Your task to perform on an android device: Open the stopwatch Image 0: 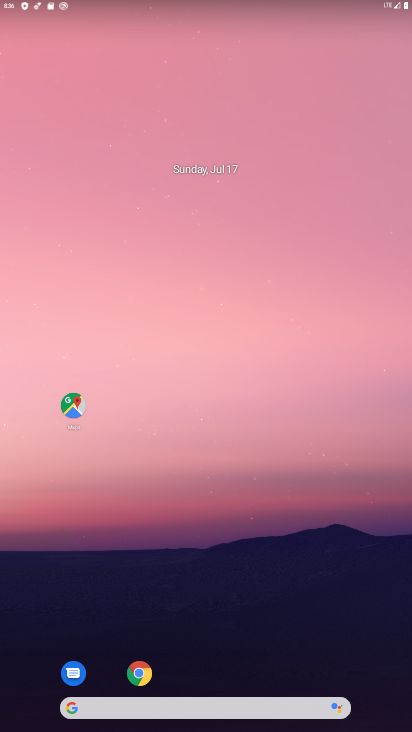
Step 0: drag from (361, 677) to (217, 32)
Your task to perform on an android device: Open the stopwatch Image 1: 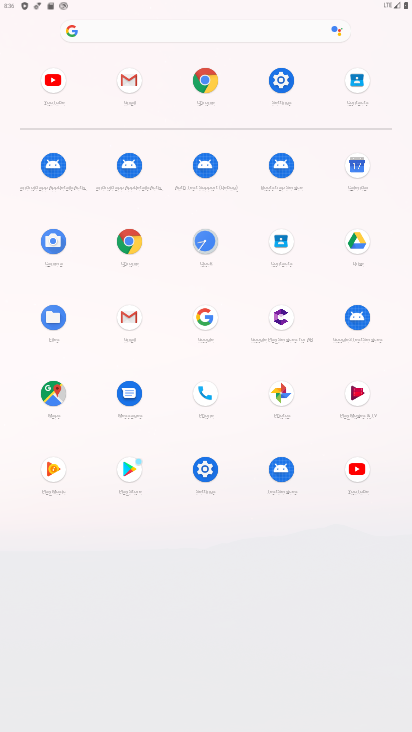
Step 1: click (203, 236)
Your task to perform on an android device: Open the stopwatch Image 2: 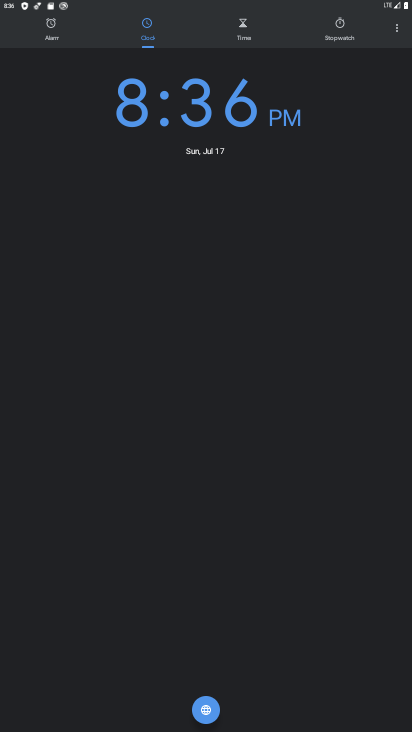
Step 2: click (343, 32)
Your task to perform on an android device: Open the stopwatch Image 3: 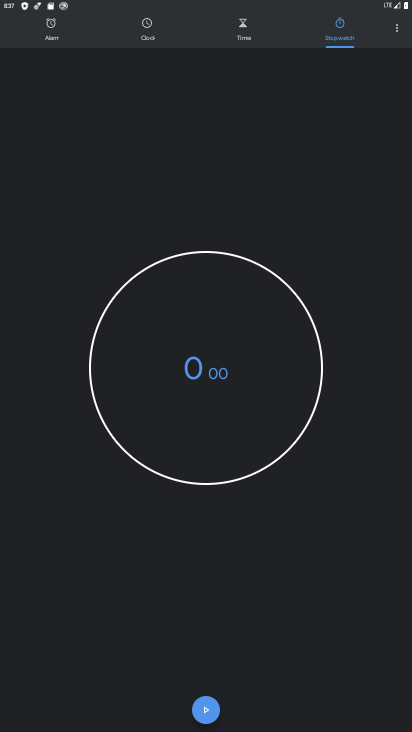
Step 3: task complete